Your task to perform on an android device: check data usage Image 0: 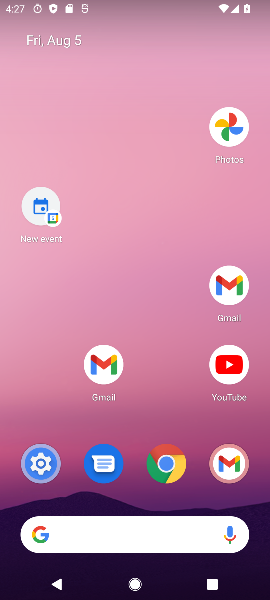
Step 0: click (134, 106)
Your task to perform on an android device: check data usage Image 1: 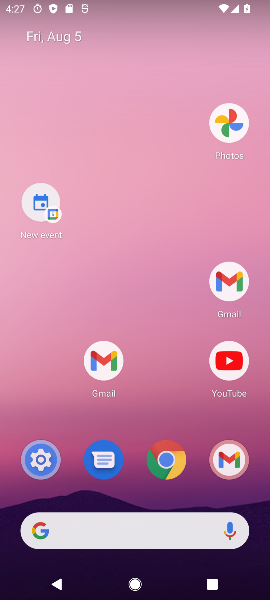
Step 1: drag from (161, 445) to (140, 98)
Your task to perform on an android device: check data usage Image 2: 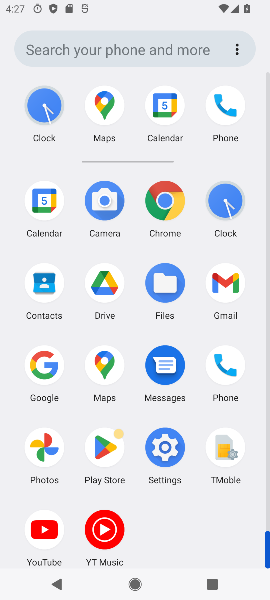
Step 2: drag from (234, 462) to (153, 203)
Your task to perform on an android device: check data usage Image 3: 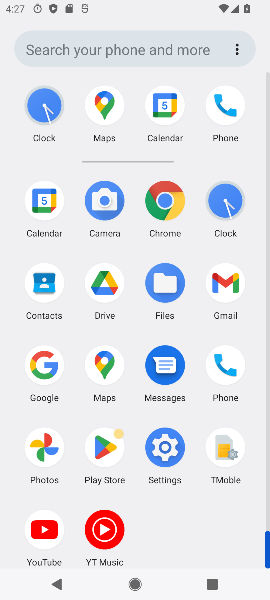
Step 3: click (163, 457)
Your task to perform on an android device: check data usage Image 4: 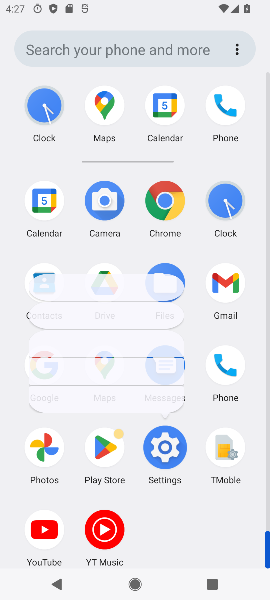
Step 4: click (163, 458)
Your task to perform on an android device: check data usage Image 5: 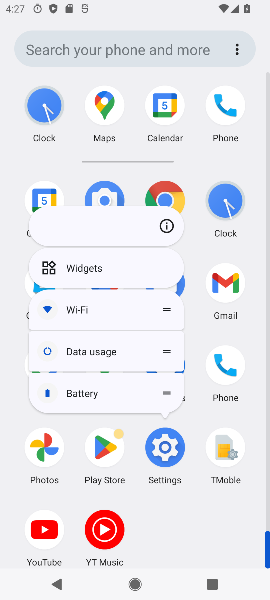
Step 5: click (153, 451)
Your task to perform on an android device: check data usage Image 6: 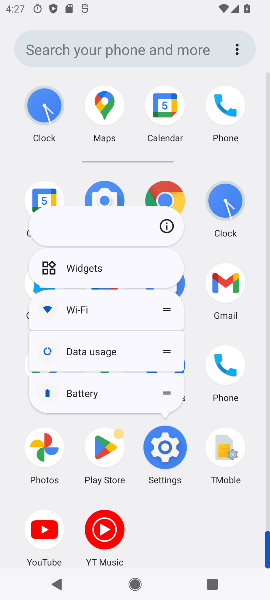
Step 6: click (153, 451)
Your task to perform on an android device: check data usage Image 7: 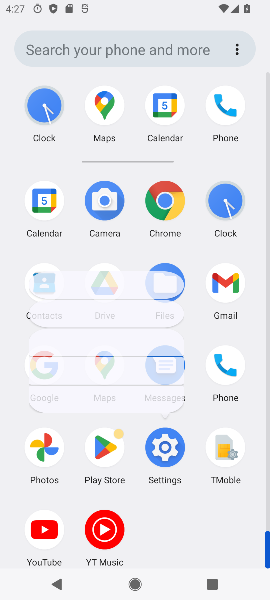
Step 7: click (153, 451)
Your task to perform on an android device: check data usage Image 8: 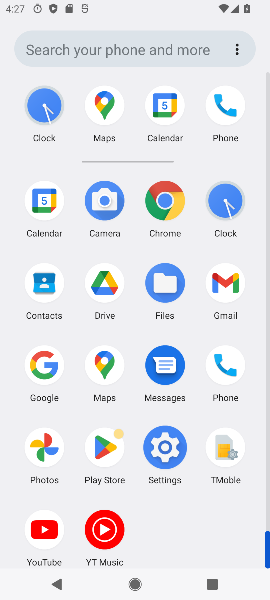
Step 8: click (153, 451)
Your task to perform on an android device: check data usage Image 9: 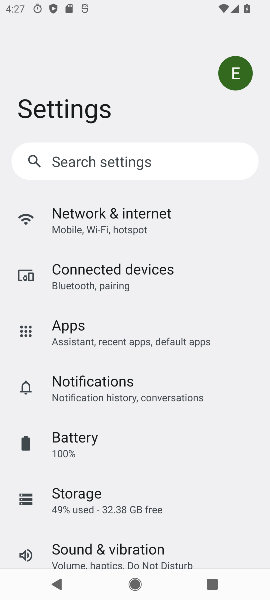
Step 9: click (161, 442)
Your task to perform on an android device: check data usage Image 10: 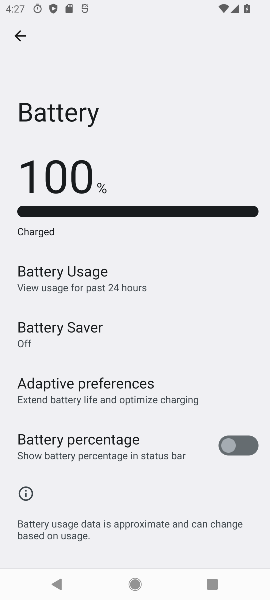
Step 10: click (57, 279)
Your task to perform on an android device: check data usage Image 11: 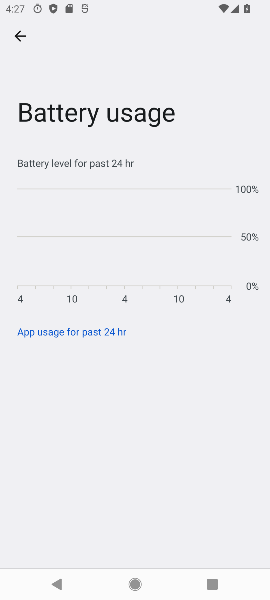
Step 11: click (24, 47)
Your task to perform on an android device: check data usage Image 12: 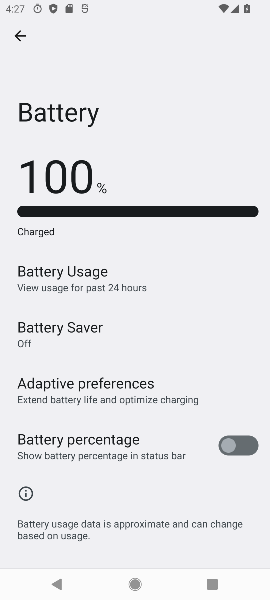
Step 12: click (17, 38)
Your task to perform on an android device: check data usage Image 13: 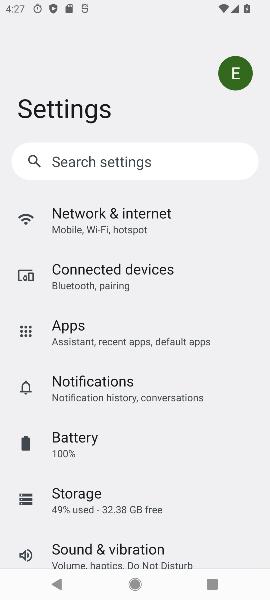
Step 13: click (102, 215)
Your task to perform on an android device: check data usage Image 14: 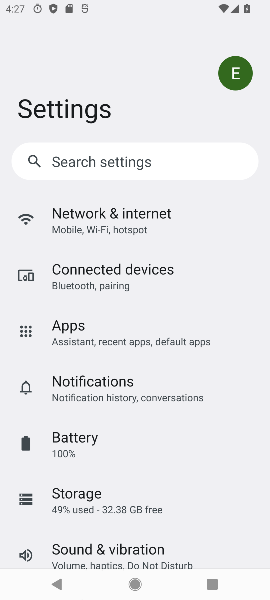
Step 14: click (102, 215)
Your task to perform on an android device: check data usage Image 15: 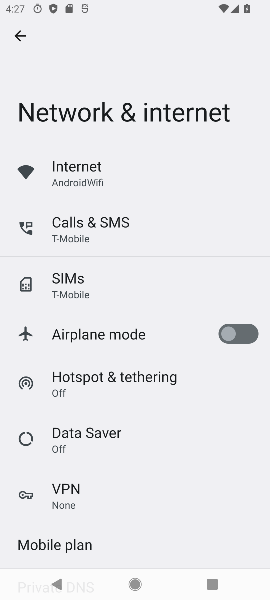
Step 15: click (74, 171)
Your task to perform on an android device: check data usage Image 16: 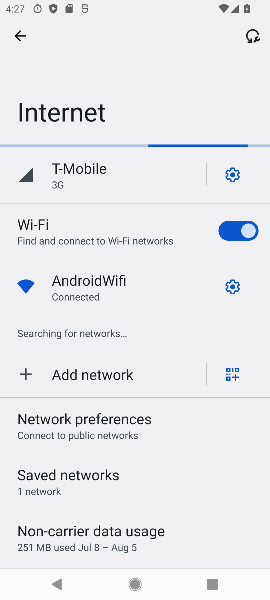
Step 16: task complete